Your task to perform on an android device: turn on sleep mode Image 0: 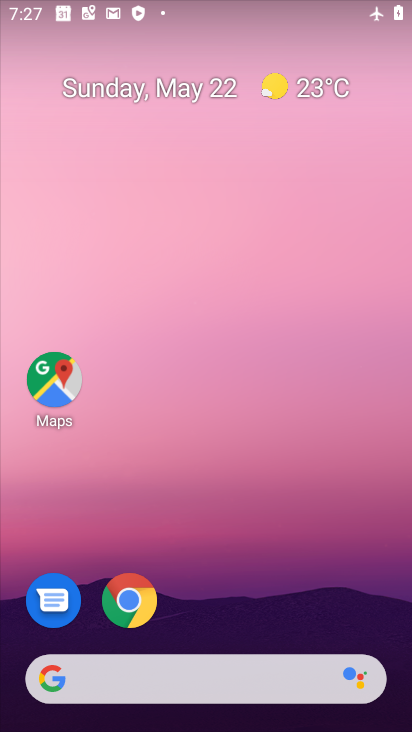
Step 0: drag from (0, 0) to (367, 512)
Your task to perform on an android device: turn on sleep mode Image 1: 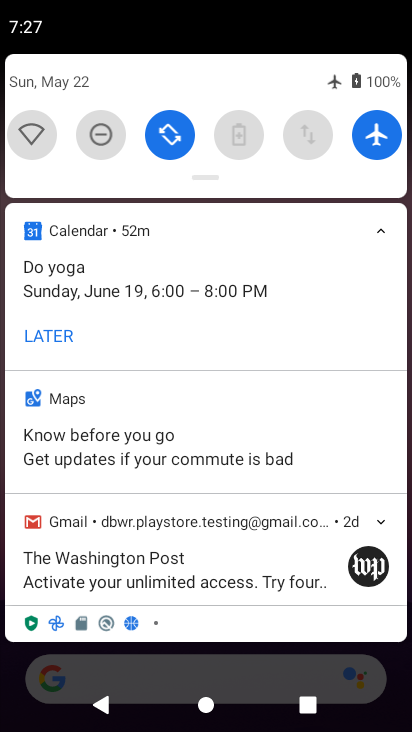
Step 1: drag from (394, 630) to (289, 98)
Your task to perform on an android device: turn on sleep mode Image 2: 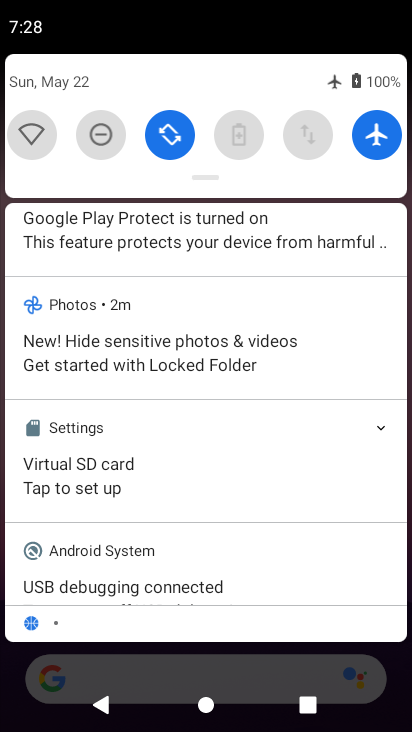
Step 2: press back button
Your task to perform on an android device: turn on sleep mode Image 3: 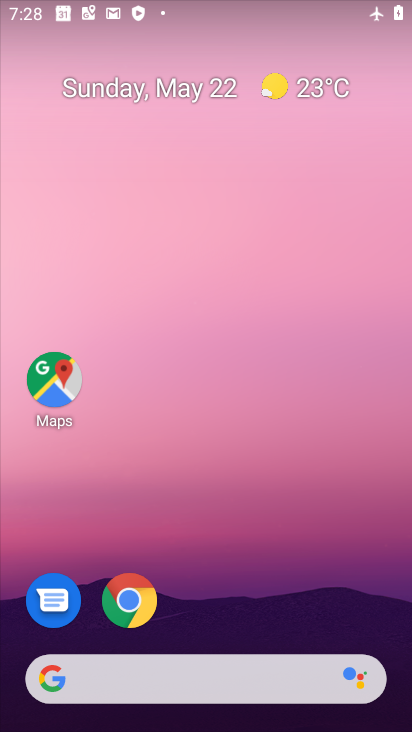
Step 3: drag from (387, 657) to (287, 92)
Your task to perform on an android device: turn on sleep mode Image 4: 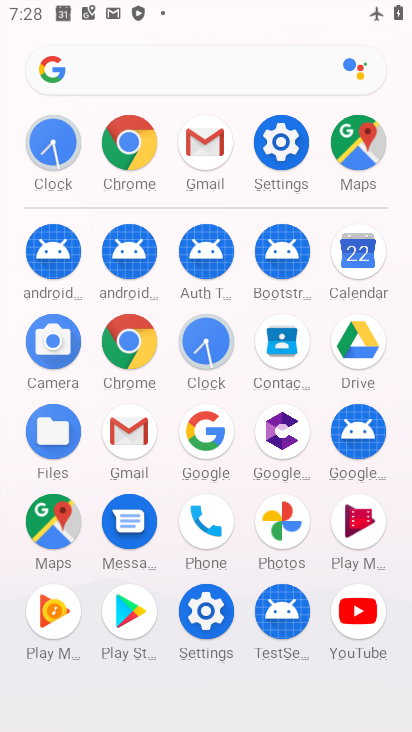
Step 4: click (288, 147)
Your task to perform on an android device: turn on sleep mode Image 5: 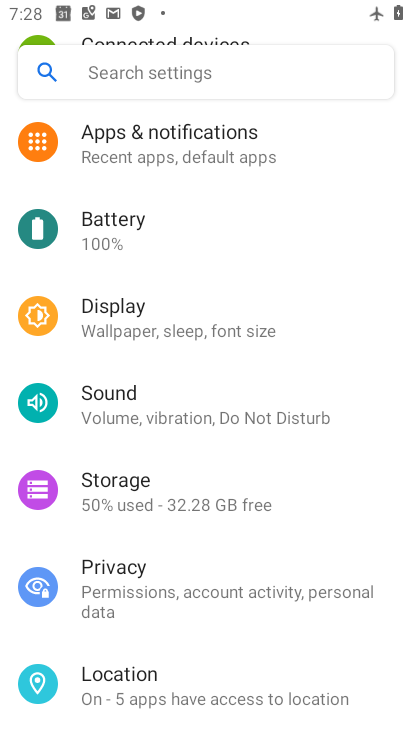
Step 5: task complete